Your task to perform on an android device: turn off notifications settings in the gmail app Image 0: 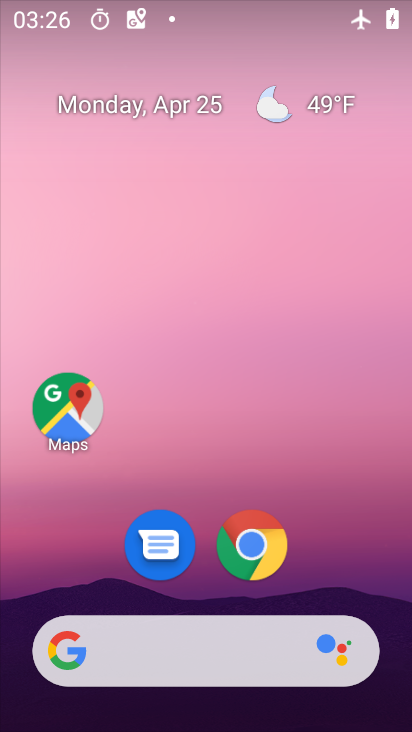
Step 0: drag from (199, 469) to (241, 7)
Your task to perform on an android device: turn off notifications settings in the gmail app Image 1: 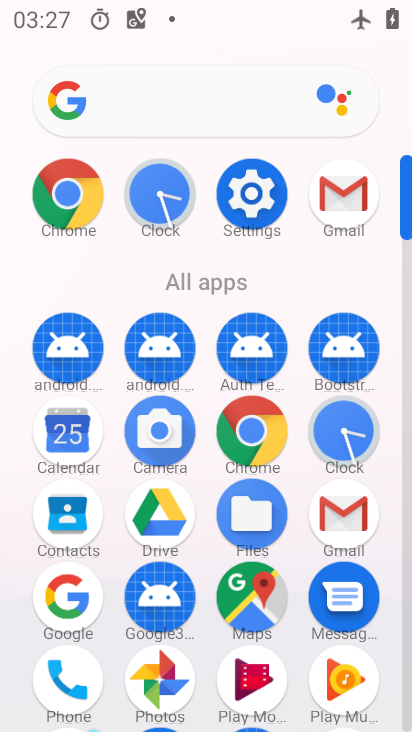
Step 1: click (345, 190)
Your task to perform on an android device: turn off notifications settings in the gmail app Image 2: 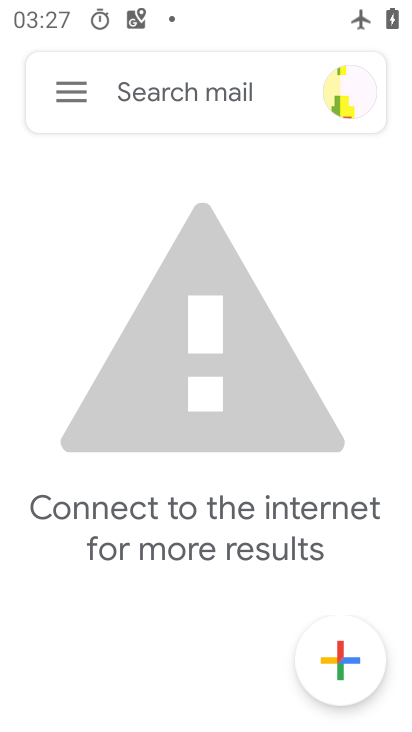
Step 2: click (69, 94)
Your task to perform on an android device: turn off notifications settings in the gmail app Image 3: 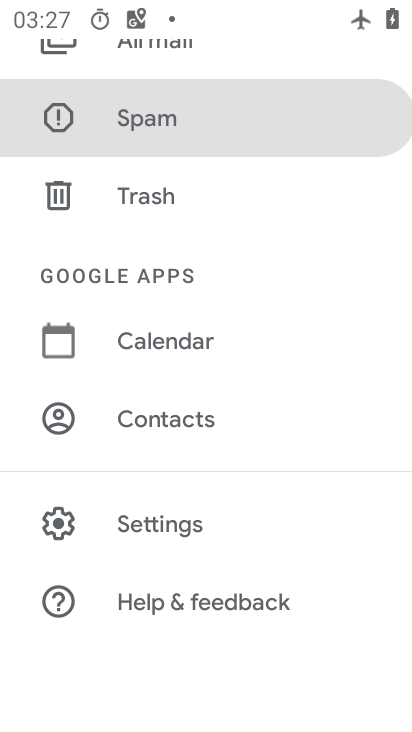
Step 3: click (146, 528)
Your task to perform on an android device: turn off notifications settings in the gmail app Image 4: 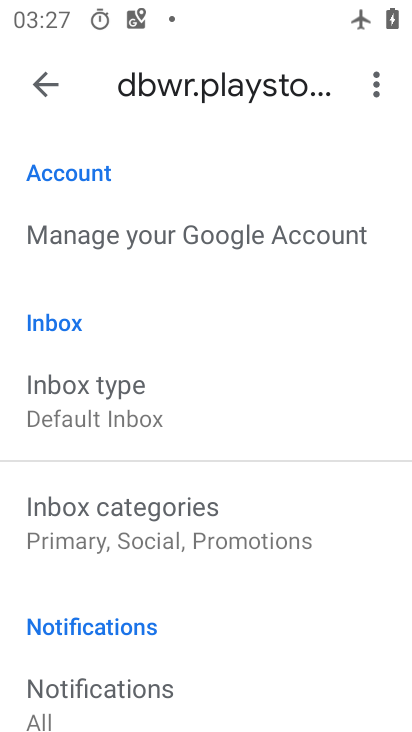
Step 4: drag from (223, 594) to (260, 465)
Your task to perform on an android device: turn off notifications settings in the gmail app Image 5: 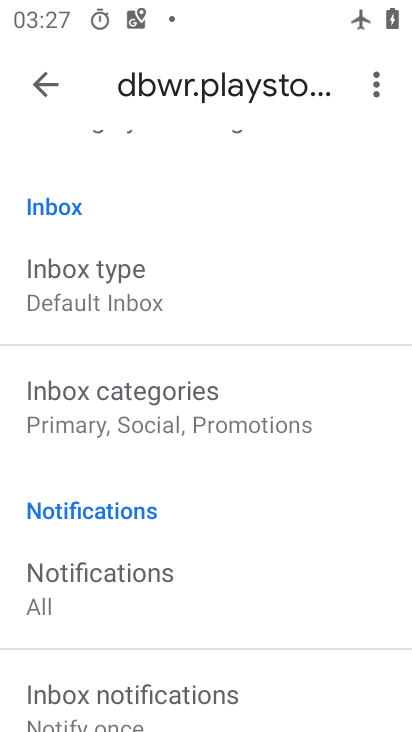
Step 5: drag from (219, 554) to (262, 441)
Your task to perform on an android device: turn off notifications settings in the gmail app Image 6: 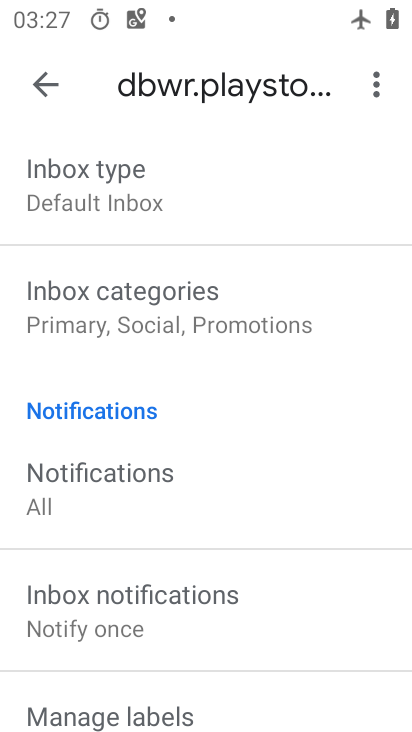
Step 6: drag from (259, 574) to (288, 445)
Your task to perform on an android device: turn off notifications settings in the gmail app Image 7: 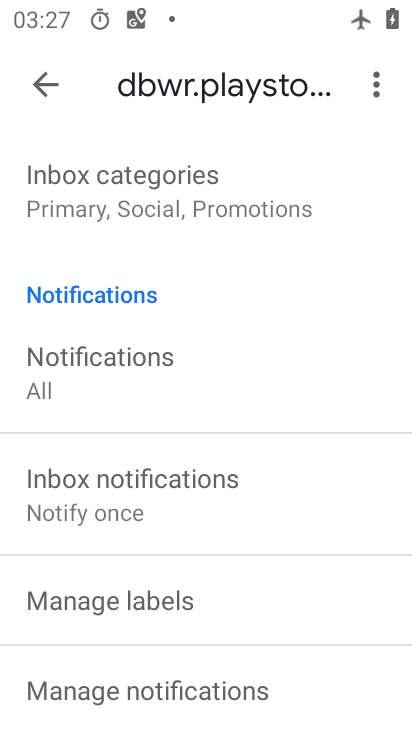
Step 7: drag from (204, 581) to (269, 463)
Your task to perform on an android device: turn off notifications settings in the gmail app Image 8: 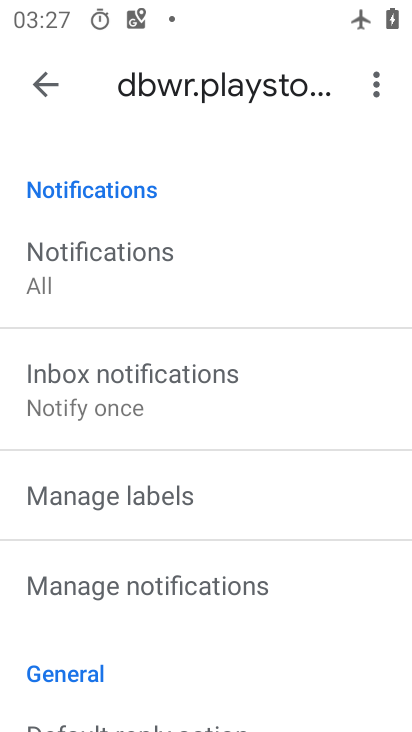
Step 8: click (215, 594)
Your task to perform on an android device: turn off notifications settings in the gmail app Image 9: 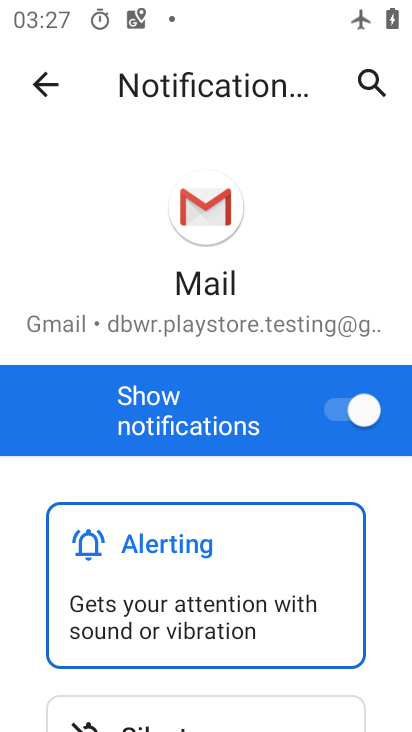
Step 9: click (360, 404)
Your task to perform on an android device: turn off notifications settings in the gmail app Image 10: 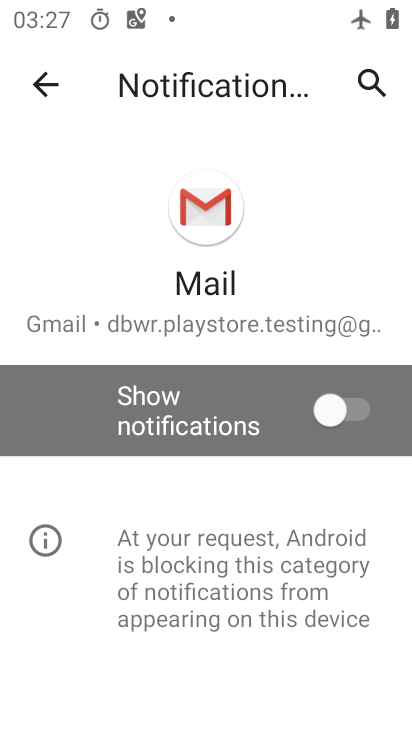
Step 10: task complete